Your task to perform on an android device: search for starred emails in the gmail app Image 0: 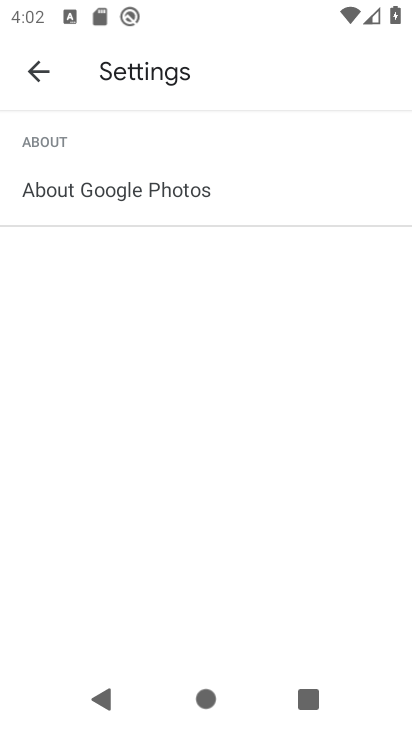
Step 0: press home button
Your task to perform on an android device: search for starred emails in the gmail app Image 1: 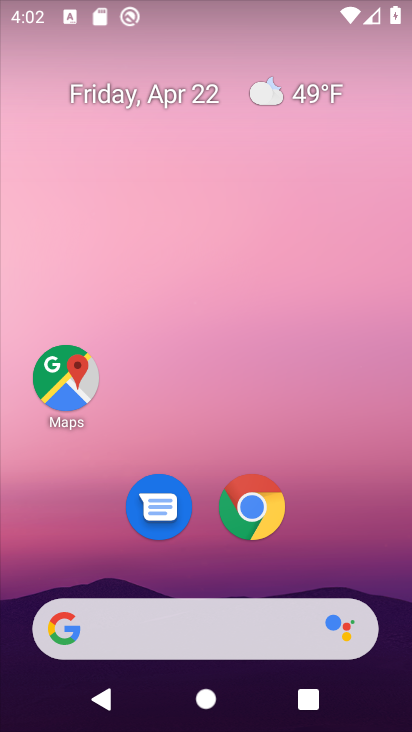
Step 1: drag from (386, 601) to (288, 60)
Your task to perform on an android device: search for starred emails in the gmail app Image 2: 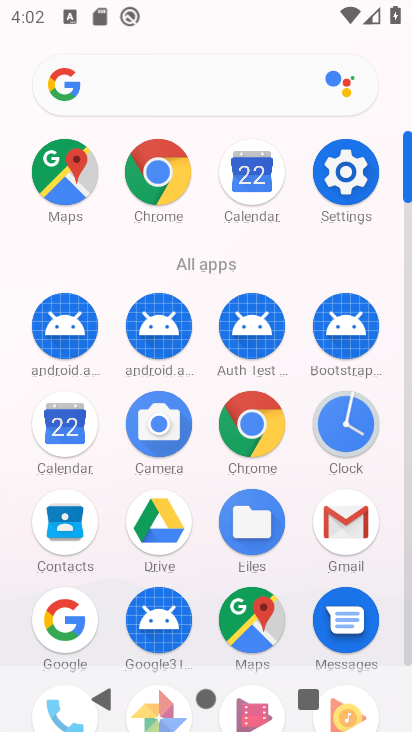
Step 2: click (408, 647)
Your task to perform on an android device: search for starred emails in the gmail app Image 3: 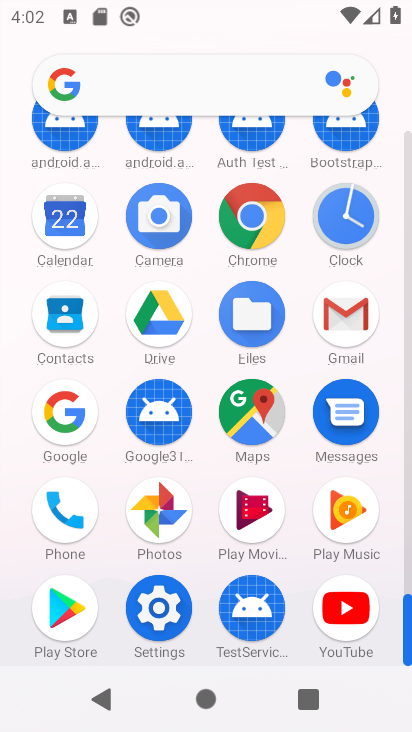
Step 3: click (342, 312)
Your task to perform on an android device: search for starred emails in the gmail app Image 4: 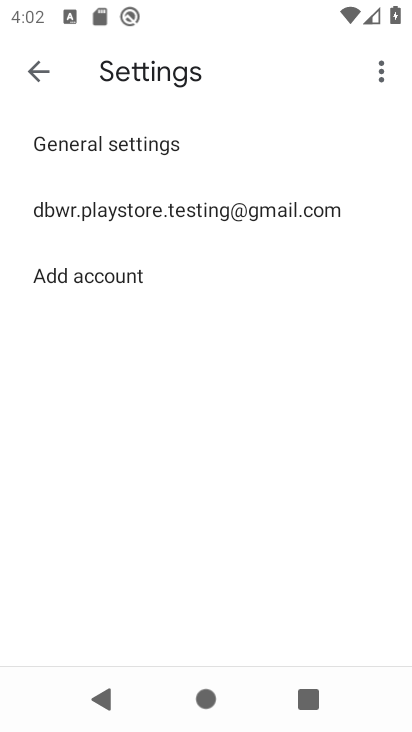
Step 4: press back button
Your task to perform on an android device: search for starred emails in the gmail app Image 5: 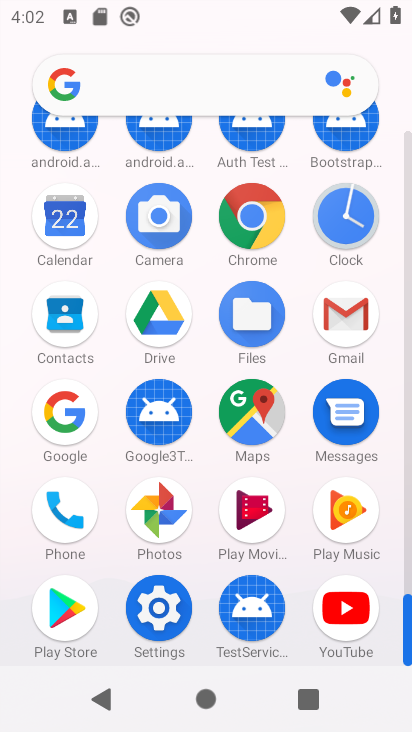
Step 5: click (345, 312)
Your task to perform on an android device: search for starred emails in the gmail app Image 6: 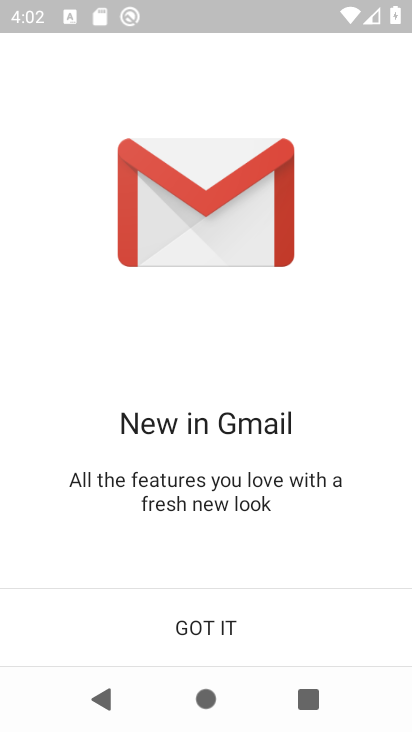
Step 6: click (199, 624)
Your task to perform on an android device: search for starred emails in the gmail app Image 7: 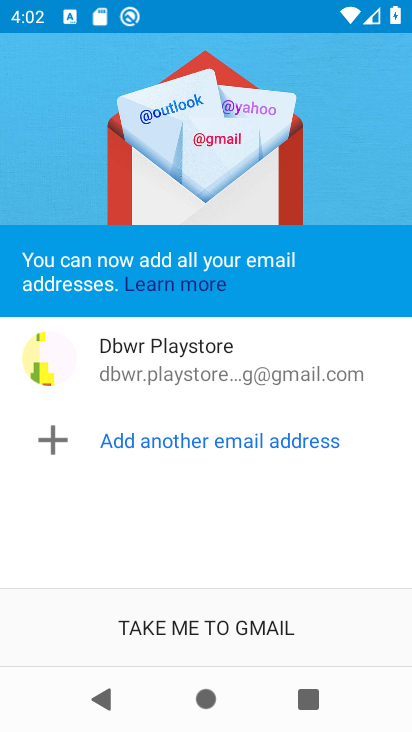
Step 7: click (203, 629)
Your task to perform on an android device: search for starred emails in the gmail app Image 8: 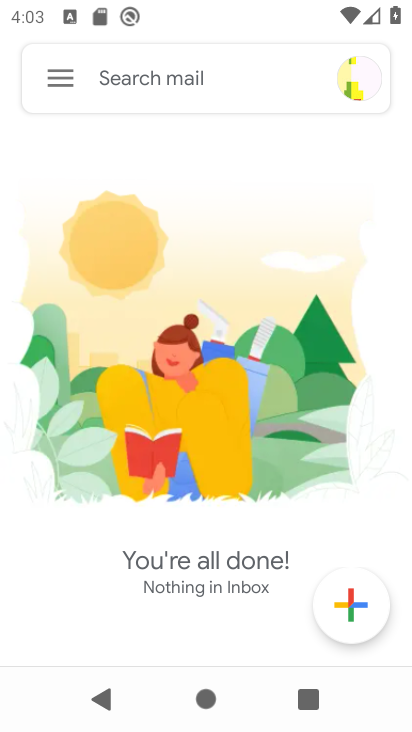
Step 8: click (67, 77)
Your task to perform on an android device: search for starred emails in the gmail app Image 9: 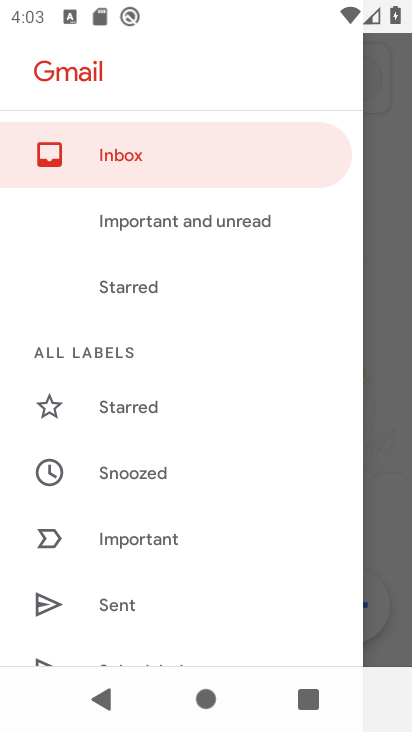
Step 9: click (113, 404)
Your task to perform on an android device: search for starred emails in the gmail app Image 10: 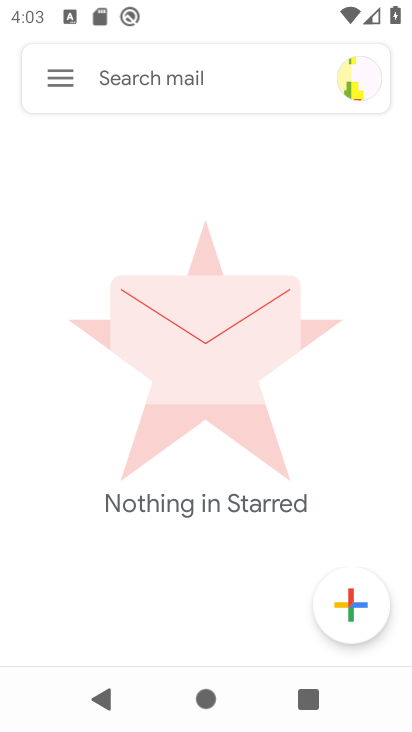
Step 10: task complete